Your task to perform on an android device: Open maps Image 0: 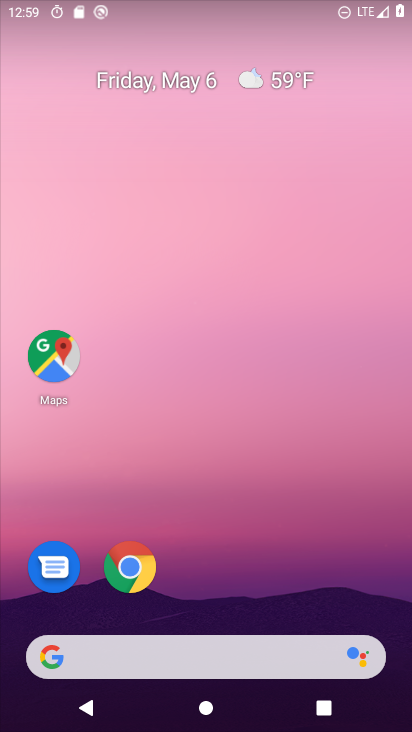
Step 0: click (63, 359)
Your task to perform on an android device: Open maps Image 1: 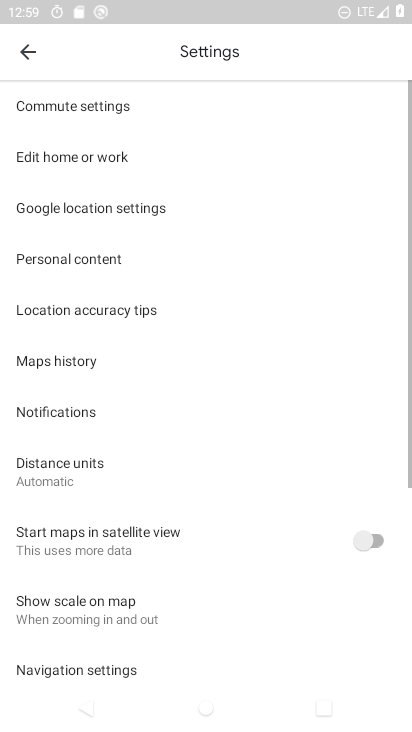
Step 1: click (32, 56)
Your task to perform on an android device: Open maps Image 2: 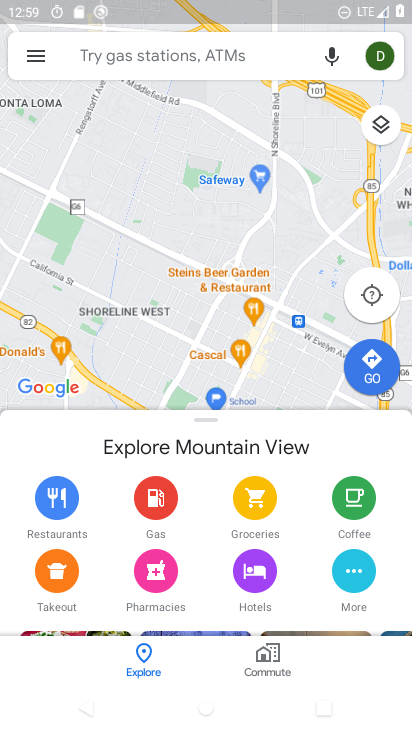
Step 2: task complete